Your task to perform on an android device: Look up the best rated 5.1 home theater speakers on Walmart. Image 0: 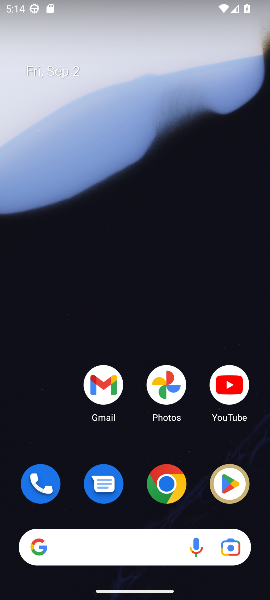
Step 0: click (166, 482)
Your task to perform on an android device: Look up the best rated 5.1 home theater speakers on Walmart. Image 1: 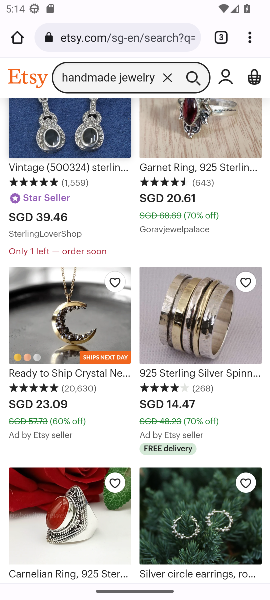
Step 1: click (151, 35)
Your task to perform on an android device: Look up the best rated 5.1 home theater speakers on Walmart. Image 2: 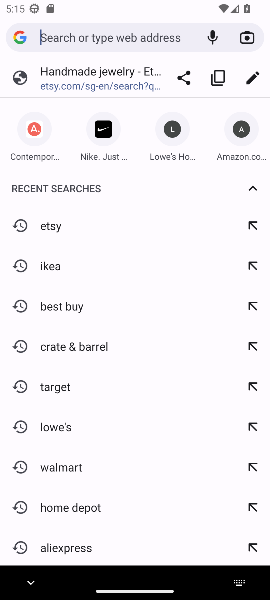
Step 2: type " Walmart"
Your task to perform on an android device: Look up the best rated 5.1 home theater speakers on Walmart. Image 3: 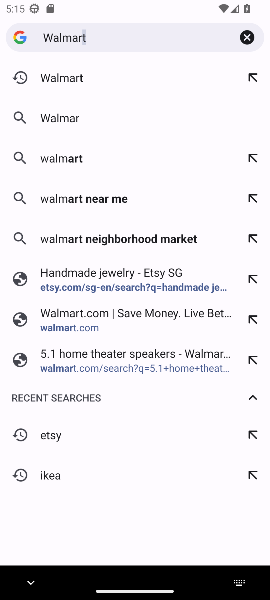
Step 3: press enter
Your task to perform on an android device: Look up the best rated 5.1 home theater speakers on Walmart. Image 4: 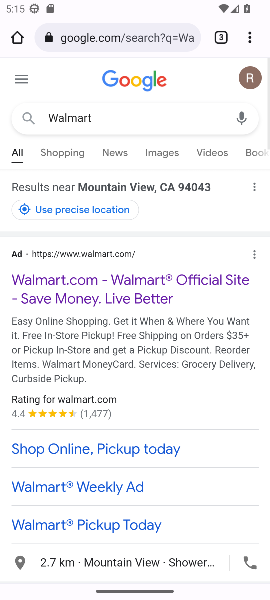
Step 4: drag from (138, 444) to (187, 206)
Your task to perform on an android device: Look up the best rated 5.1 home theater speakers on Walmart. Image 5: 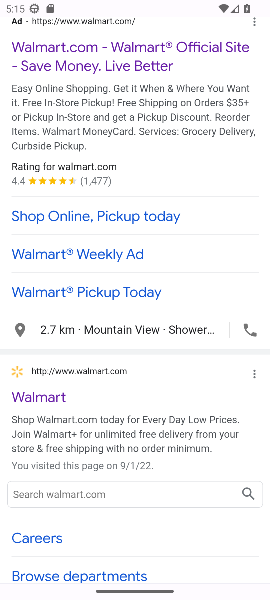
Step 5: click (52, 395)
Your task to perform on an android device: Look up the best rated 5.1 home theater speakers on Walmart. Image 6: 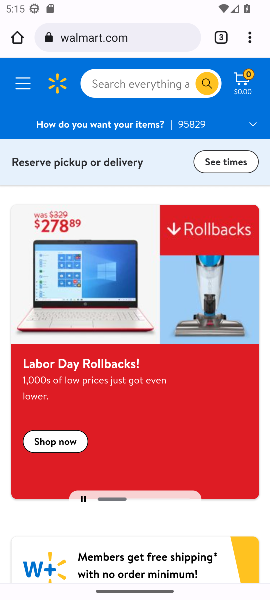
Step 6: click (160, 86)
Your task to perform on an android device: Look up the best rated 5.1 home theater speakers on Walmart. Image 7: 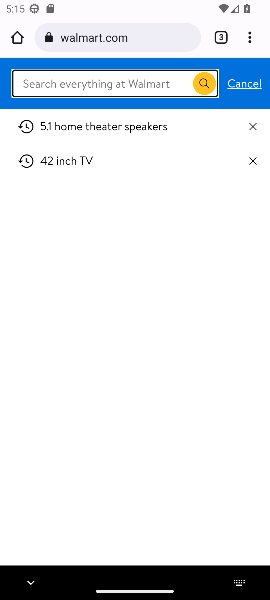
Step 7: type "5.1 home theater speakers"
Your task to perform on an android device: Look up the best rated 5.1 home theater speakers on Walmart. Image 8: 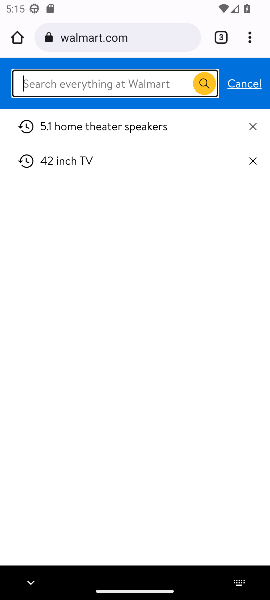
Step 8: press enter
Your task to perform on an android device: Look up the best rated 5.1 home theater speakers on Walmart. Image 9: 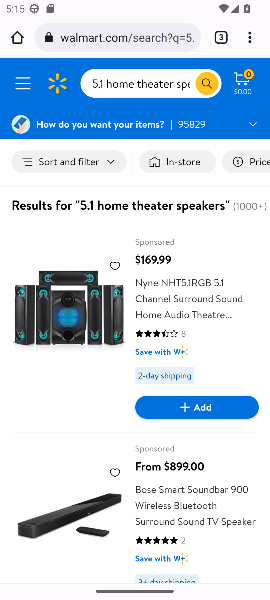
Step 9: task complete